Your task to perform on an android device: allow cookies in the chrome app Image 0: 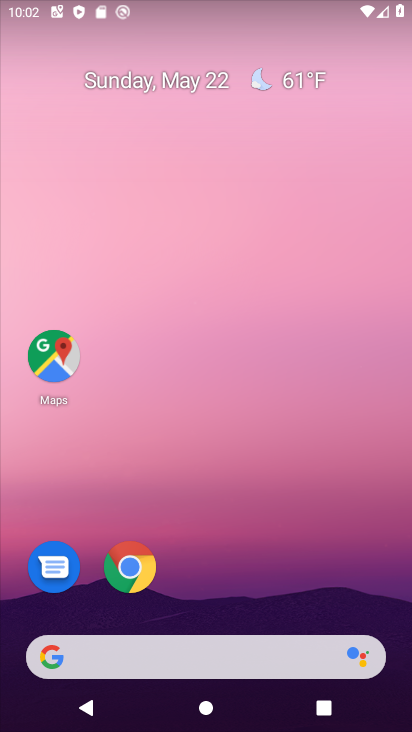
Step 0: drag from (199, 633) to (169, 28)
Your task to perform on an android device: allow cookies in the chrome app Image 1: 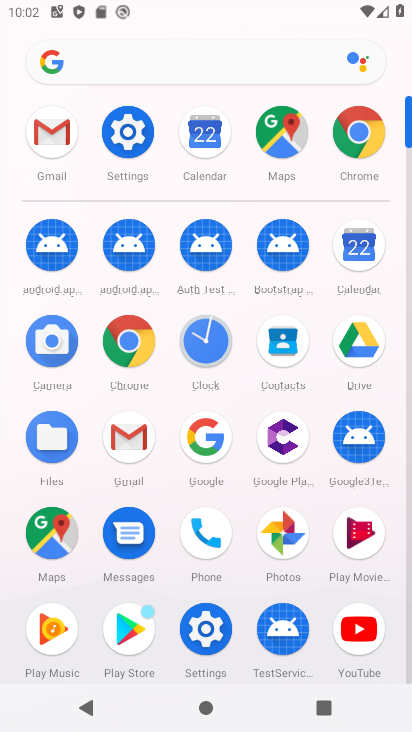
Step 1: click (134, 337)
Your task to perform on an android device: allow cookies in the chrome app Image 2: 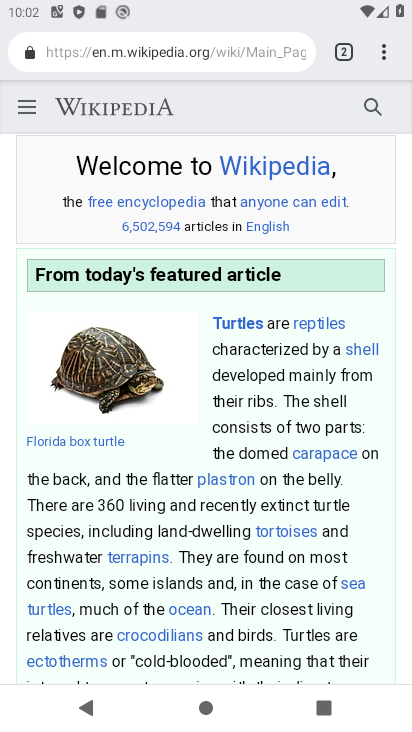
Step 2: drag from (381, 41) to (197, 599)
Your task to perform on an android device: allow cookies in the chrome app Image 3: 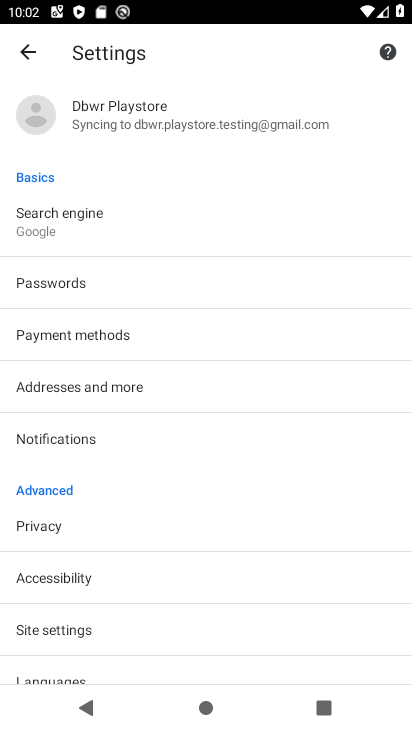
Step 3: click (64, 627)
Your task to perform on an android device: allow cookies in the chrome app Image 4: 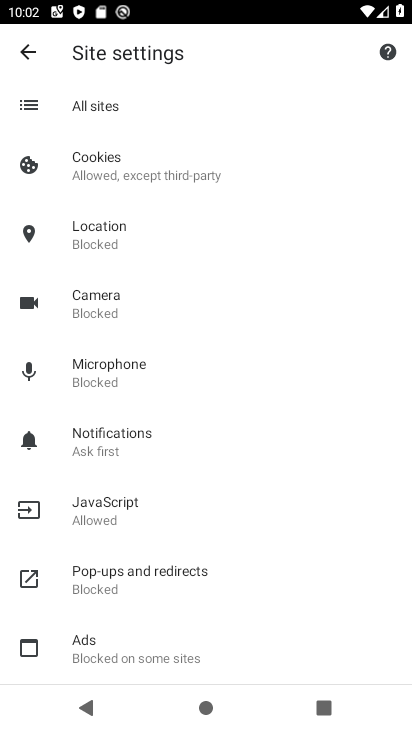
Step 4: click (104, 150)
Your task to perform on an android device: allow cookies in the chrome app Image 5: 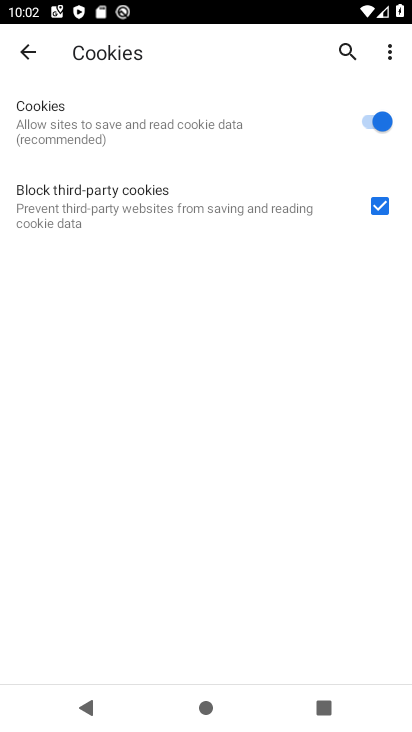
Step 5: task complete